Your task to perform on an android device: Go to Yahoo.com Image 0: 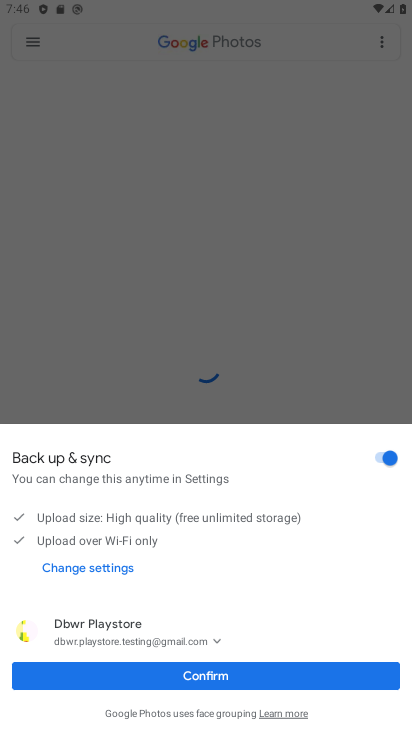
Step 0: press home button
Your task to perform on an android device: Go to Yahoo.com Image 1: 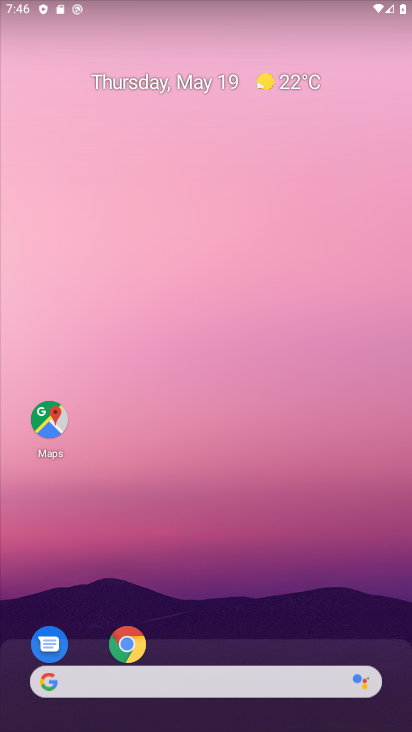
Step 1: drag from (269, 713) to (292, 271)
Your task to perform on an android device: Go to Yahoo.com Image 2: 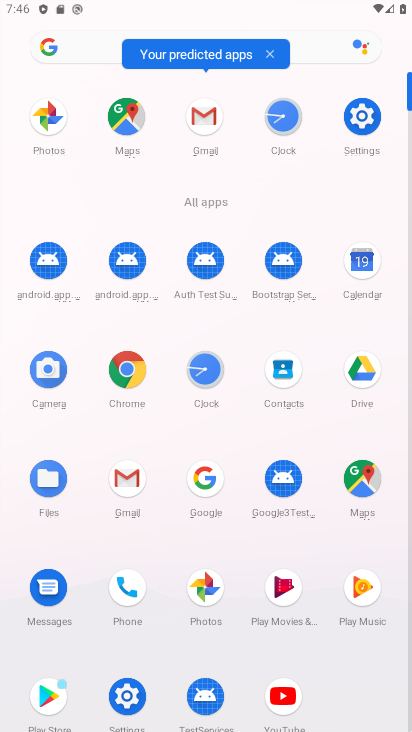
Step 2: click (137, 377)
Your task to perform on an android device: Go to Yahoo.com Image 3: 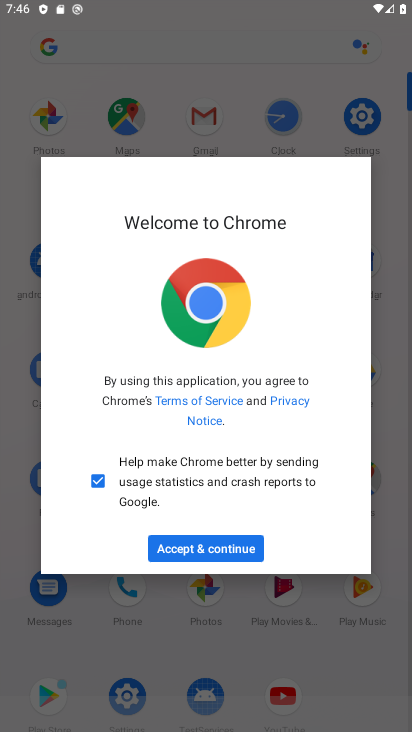
Step 3: click (208, 546)
Your task to perform on an android device: Go to Yahoo.com Image 4: 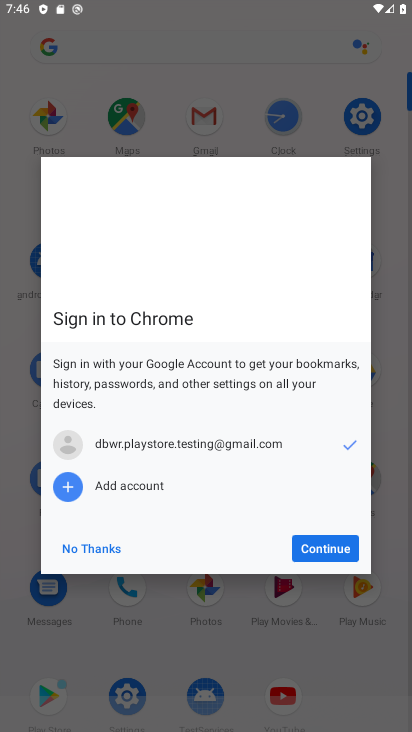
Step 4: click (315, 556)
Your task to perform on an android device: Go to Yahoo.com Image 5: 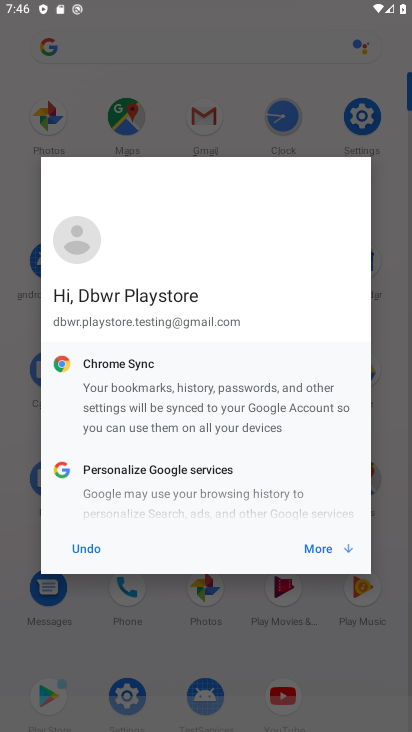
Step 5: click (337, 544)
Your task to perform on an android device: Go to Yahoo.com Image 6: 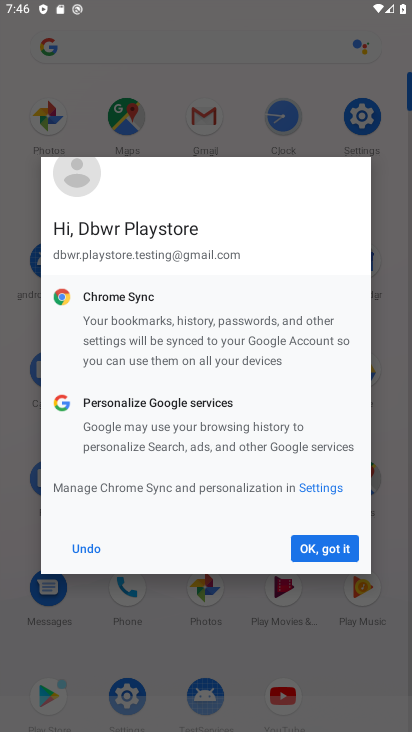
Step 6: click (337, 544)
Your task to perform on an android device: Go to Yahoo.com Image 7: 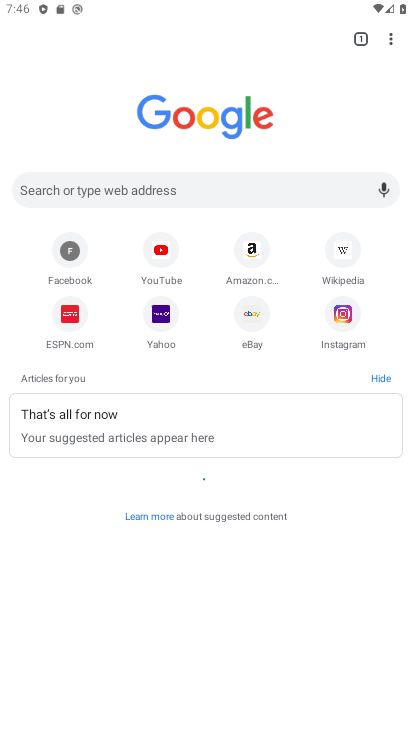
Step 7: click (164, 326)
Your task to perform on an android device: Go to Yahoo.com Image 8: 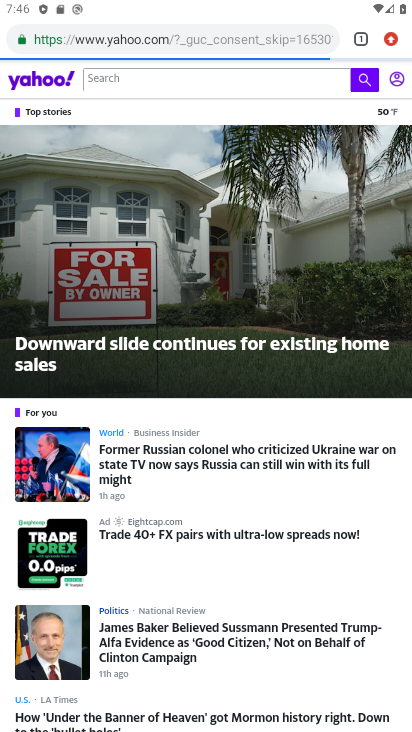
Step 8: task complete